Your task to perform on an android device: toggle notification dots Image 0: 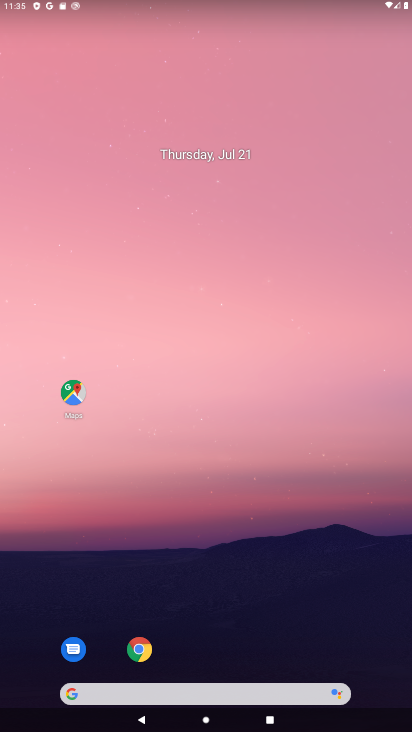
Step 0: drag from (370, 615) to (140, 119)
Your task to perform on an android device: toggle notification dots Image 1: 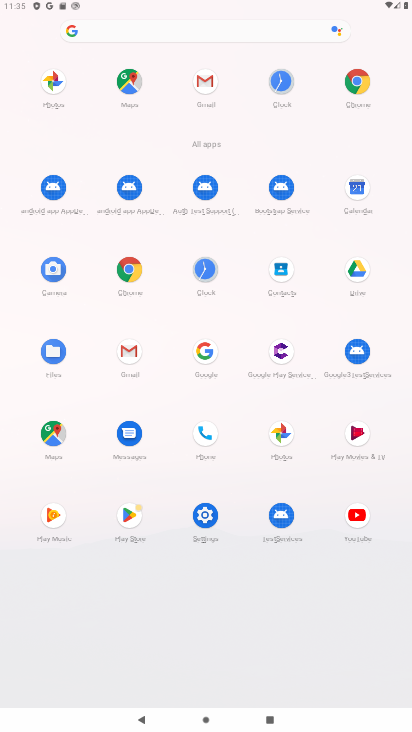
Step 1: click (210, 513)
Your task to perform on an android device: toggle notification dots Image 2: 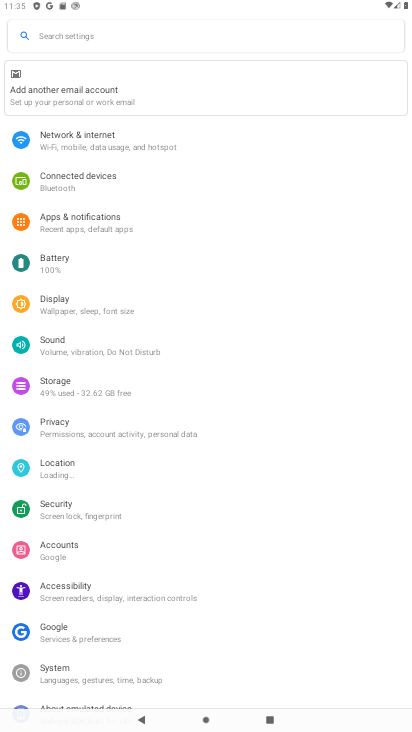
Step 2: click (101, 216)
Your task to perform on an android device: toggle notification dots Image 3: 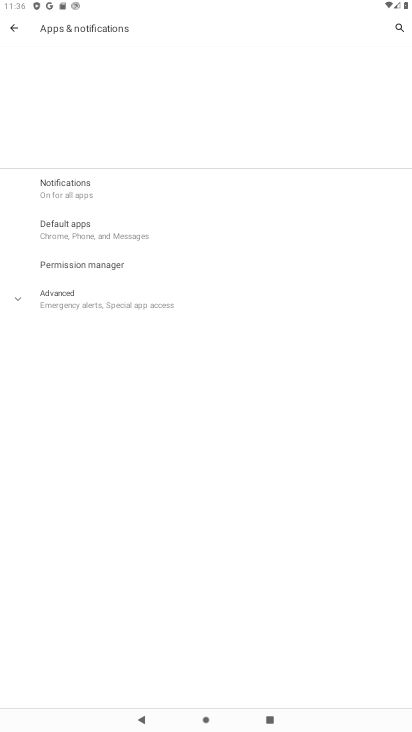
Step 3: click (99, 183)
Your task to perform on an android device: toggle notification dots Image 4: 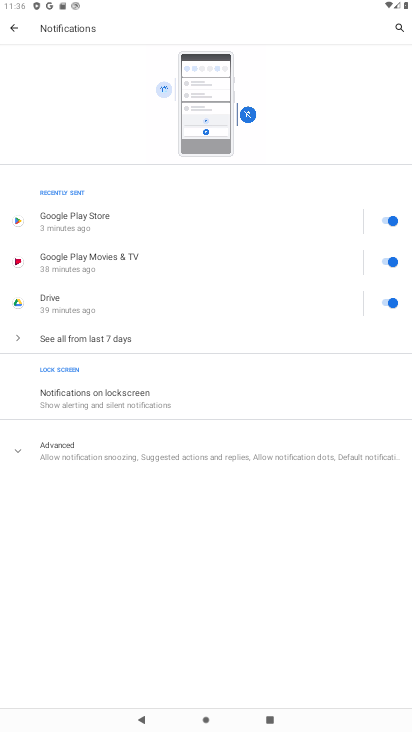
Step 4: click (112, 453)
Your task to perform on an android device: toggle notification dots Image 5: 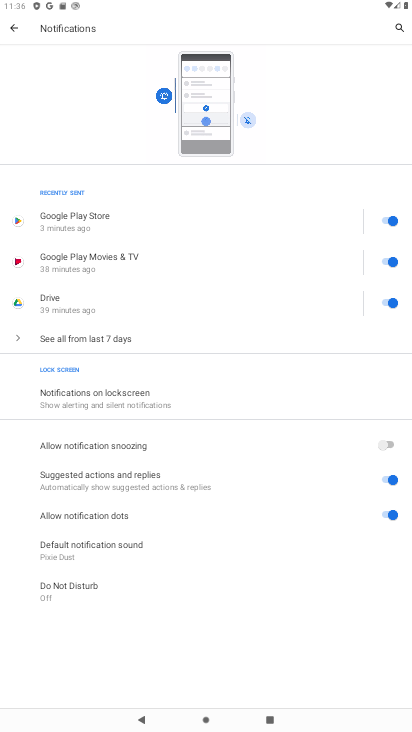
Step 5: click (389, 514)
Your task to perform on an android device: toggle notification dots Image 6: 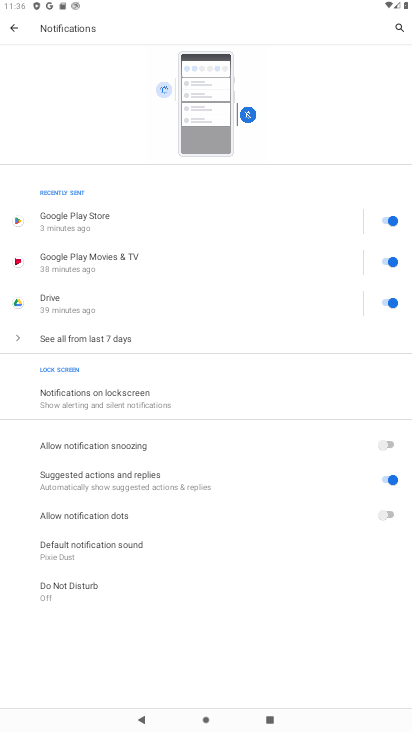
Step 6: task complete